Your task to perform on an android device: Search for 3d printed chess sets on Etsy. Image 0: 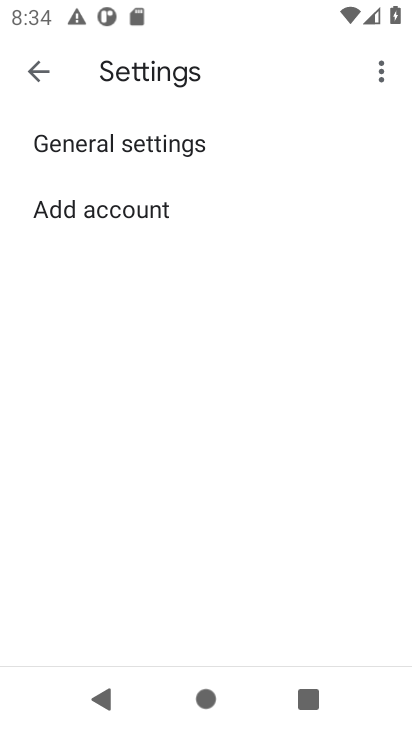
Step 0: press home button
Your task to perform on an android device: Search for 3d printed chess sets on Etsy. Image 1: 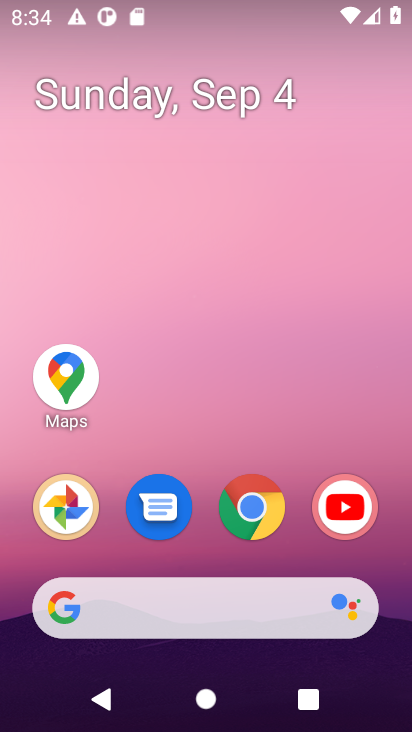
Step 1: click (252, 510)
Your task to perform on an android device: Search for 3d printed chess sets on Etsy. Image 2: 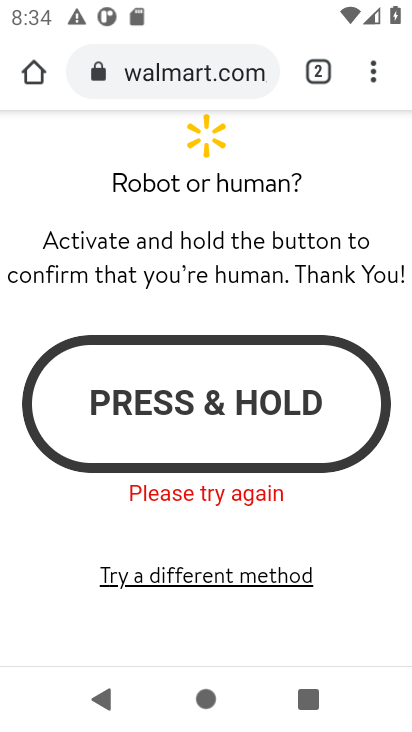
Step 2: click (166, 51)
Your task to perform on an android device: Search for 3d printed chess sets on Etsy. Image 3: 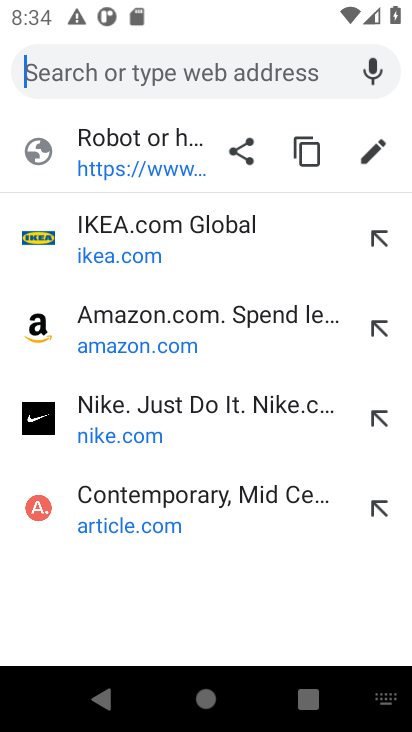
Step 3: type " Etsy"
Your task to perform on an android device: Search for 3d printed chess sets on Etsy. Image 4: 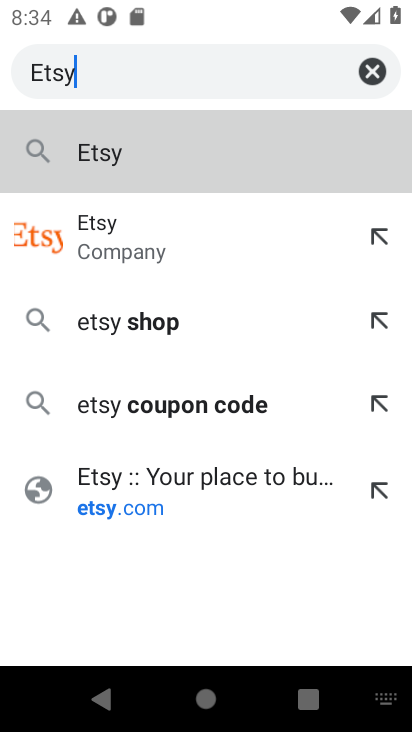
Step 4: click (88, 148)
Your task to perform on an android device: Search for 3d printed chess sets on Etsy. Image 5: 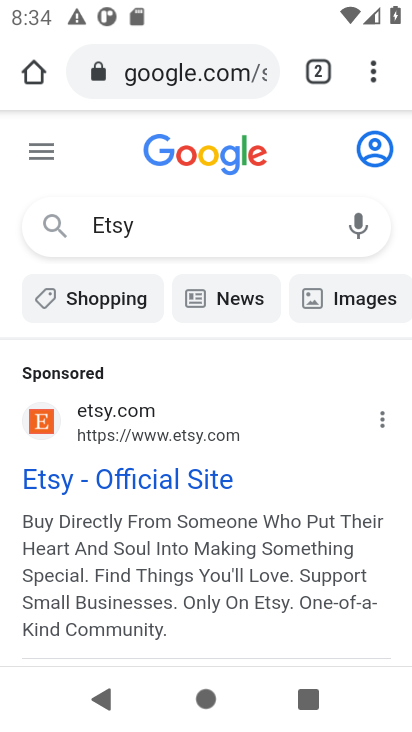
Step 5: click (115, 483)
Your task to perform on an android device: Search for 3d printed chess sets on Etsy. Image 6: 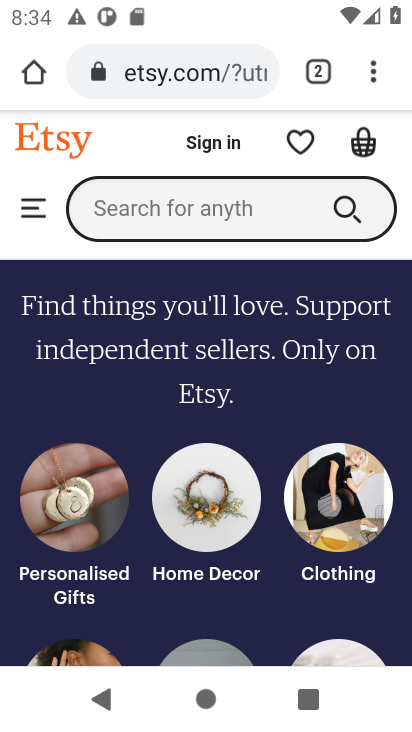
Step 6: click (114, 194)
Your task to perform on an android device: Search for 3d printed chess sets on Etsy. Image 7: 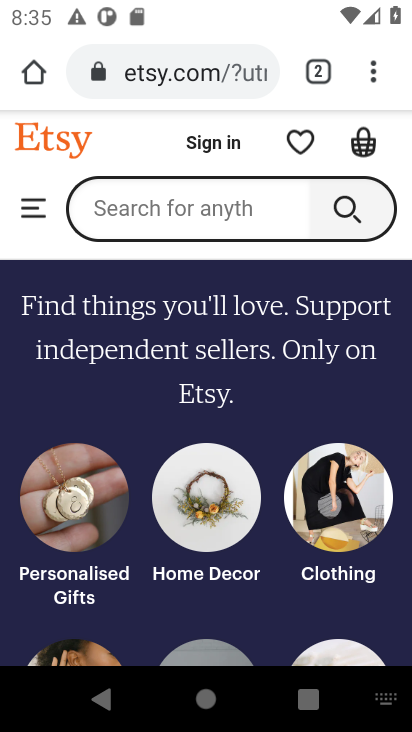
Step 7: type "3d printed chess sets"
Your task to perform on an android device: Search for 3d printed chess sets on Etsy. Image 8: 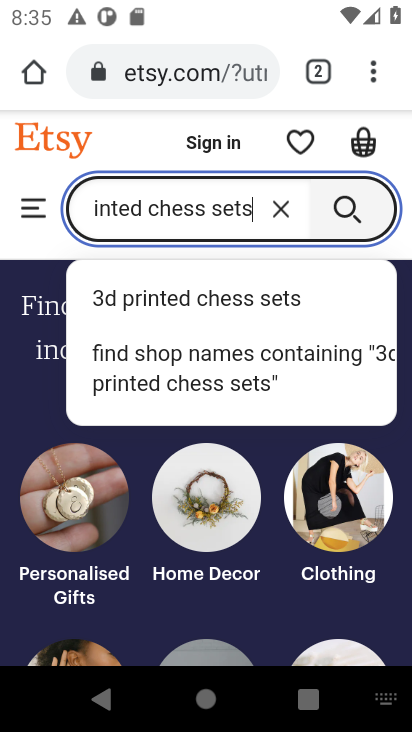
Step 8: click (209, 304)
Your task to perform on an android device: Search for 3d printed chess sets on Etsy. Image 9: 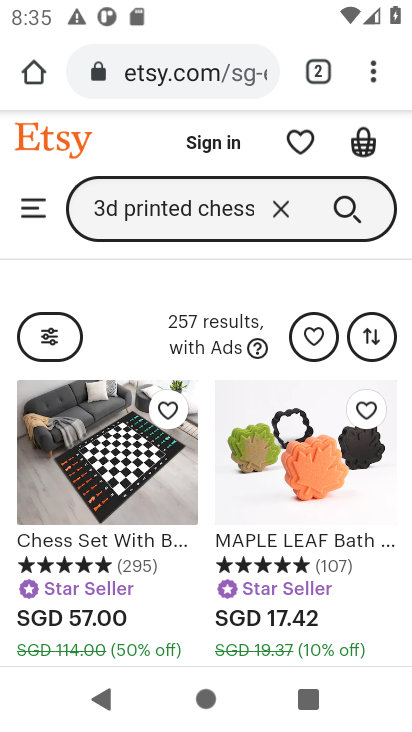
Step 9: drag from (201, 569) to (197, 361)
Your task to perform on an android device: Search for 3d printed chess sets on Etsy. Image 10: 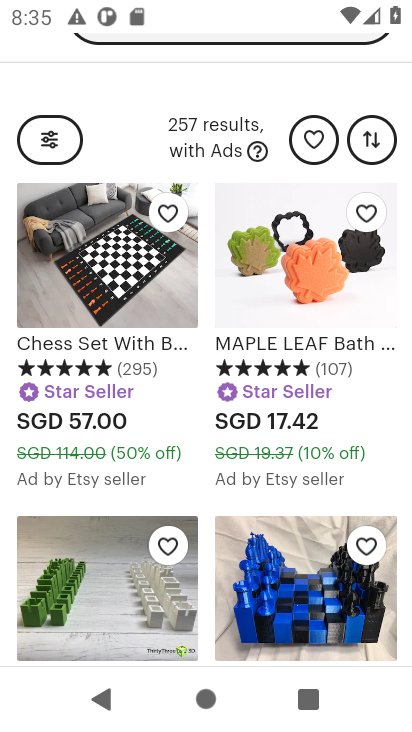
Step 10: drag from (200, 588) to (196, 326)
Your task to perform on an android device: Search for 3d printed chess sets on Etsy. Image 11: 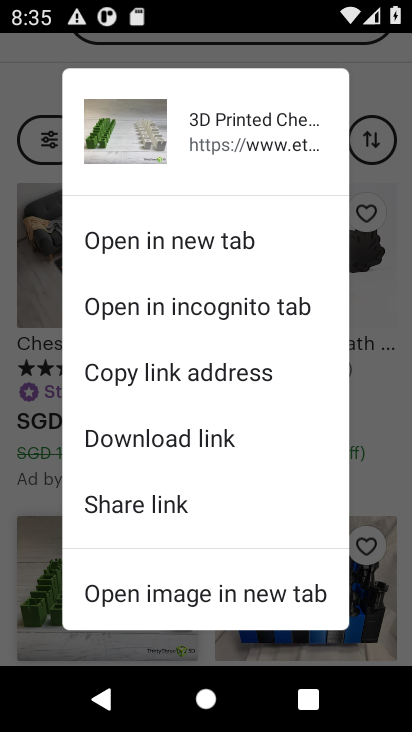
Step 11: click (238, 654)
Your task to perform on an android device: Search for 3d printed chess sets on Etsy. Image 12: 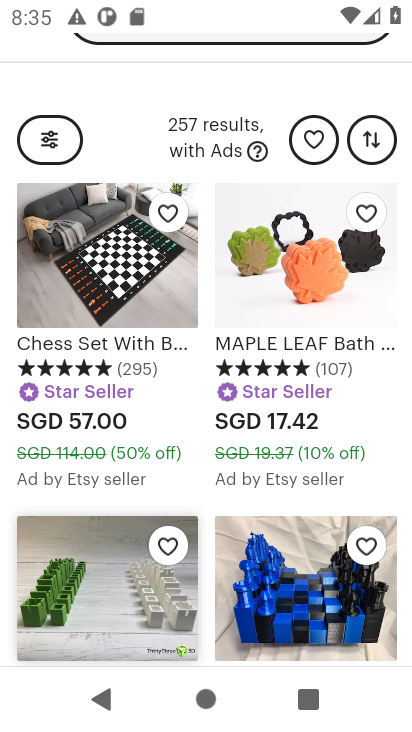
Step 12: drag from (208, 572) to (205, 315)
Your task to perform on an android device: Search for 3d printed chess sets on Etsy. Image 13: 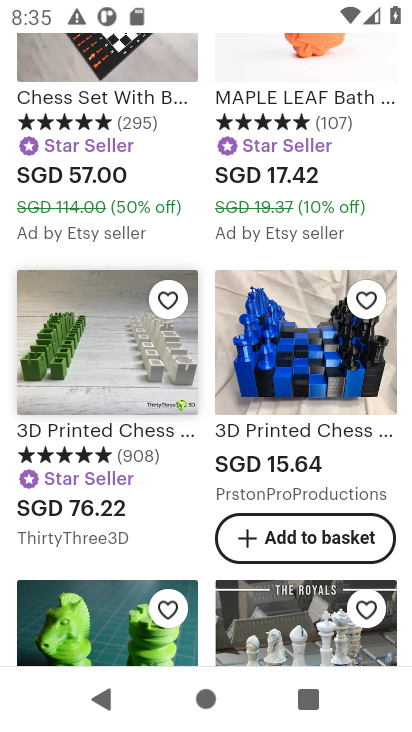
Step 13: drag from (207, 495) to (202, 271)
Your task to perform on an android device: Search for 3d printed chess sets on Etsy. Image 14: 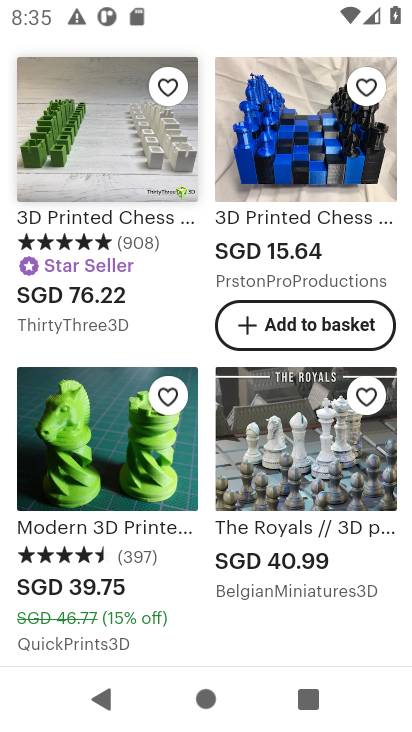
Step 14: drag from (204, 506) to (216, 209)
Your task to perform on an android device: Search for 3d printed chess sets on Etsy. Image 15: 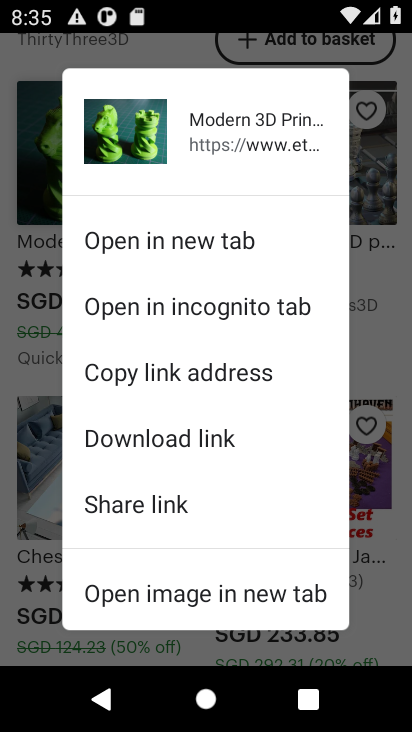
Step 15: click (2, 617)
Your task to perform on an android device: Search for 3d printed chess sets on Etsy. Image 16: 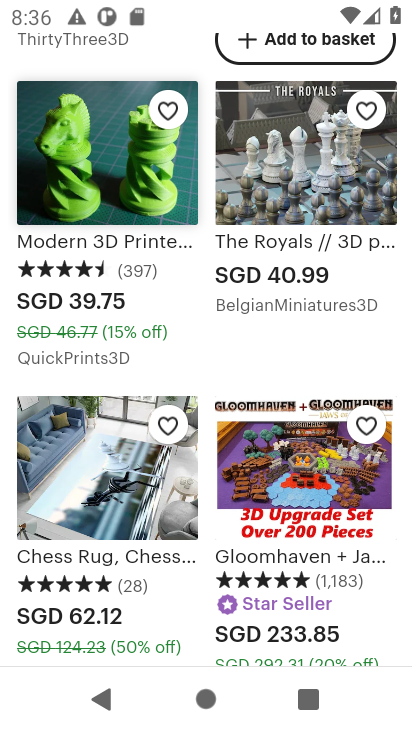
Step 16: task complete